Your task to perform on an android device: Go to network settings Image 0: 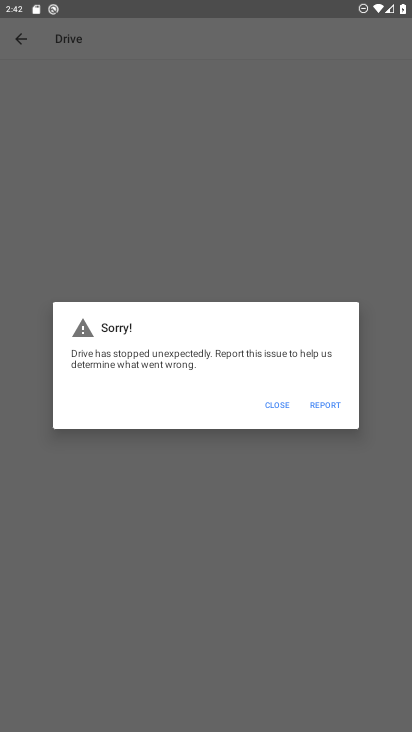
Step 0: press home button
Your task to perform on an android device: Go to network settings Image 1: 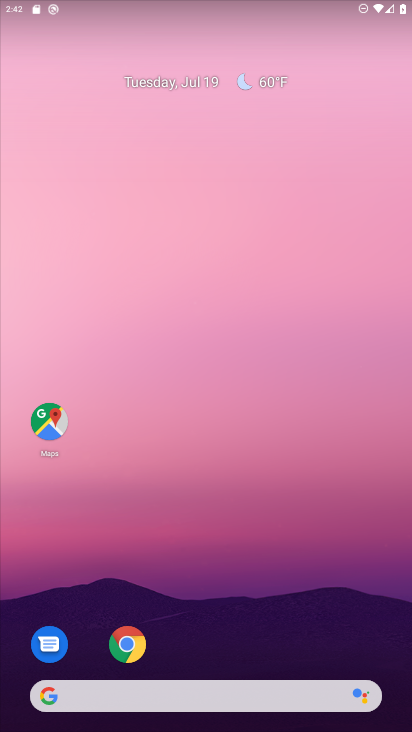
Step 1: drag from (377, 425) to (328, 17)
Your task to perform on an android device: Go to network settings Image 2: 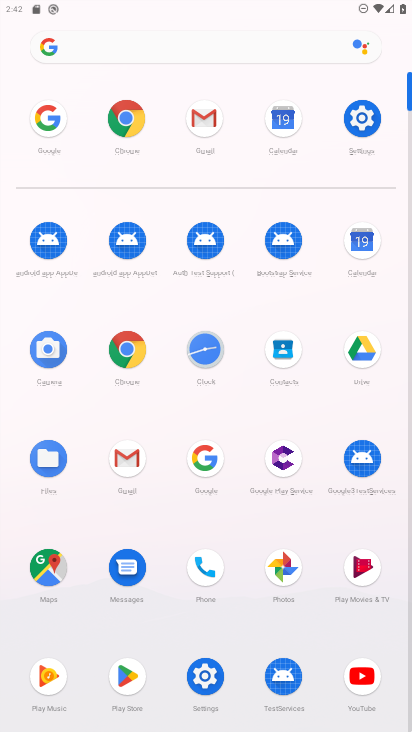
Step 2: click (362, 122)
Your task to perform on an android device: Go to network settings Image 3: 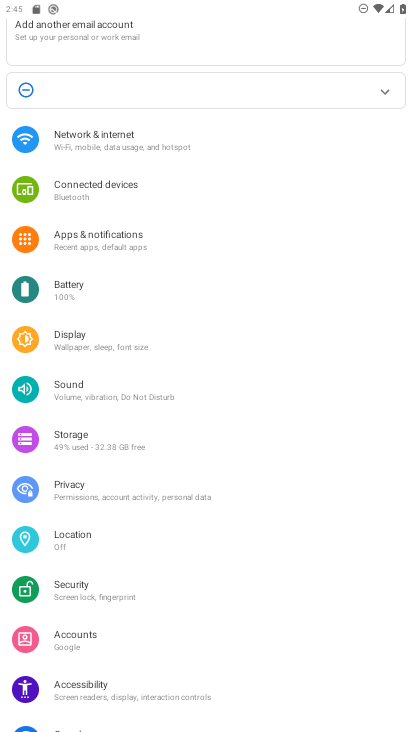
Step 3: click (83, 232)
Your task to perform on an android device: Go to network settings Image 4: 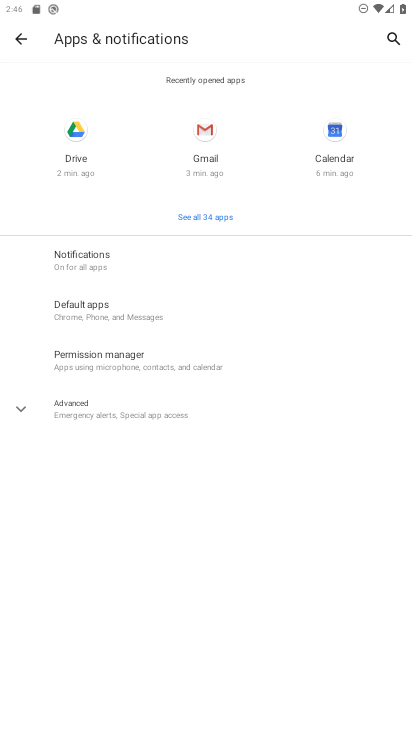
Step 4: press home button
Your task to perform on an android device: Go to network settings Image 5: 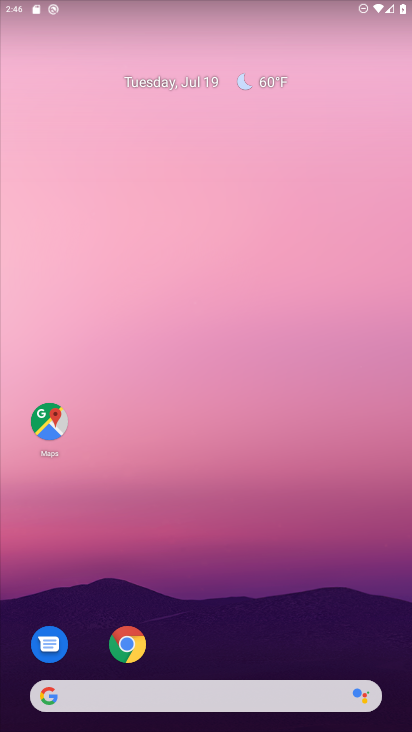
Step 5: drag from (390, 627) to (350, 159)
Your task to perform on an android device: Go to network settings Image 6: 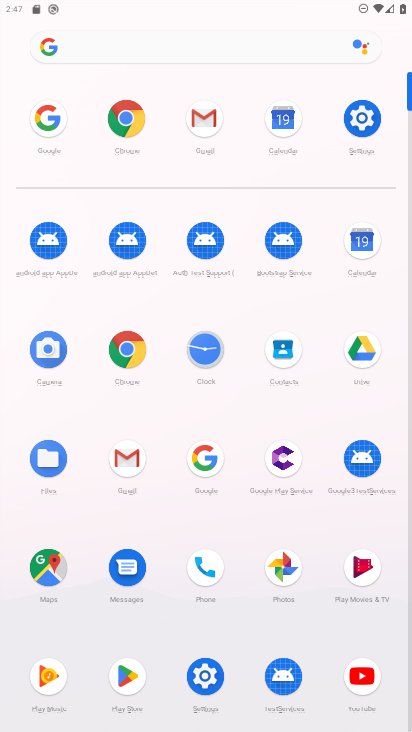
Step 6: click (353, 118)
Your task to perform on an android device: Go to network settings Image 7: 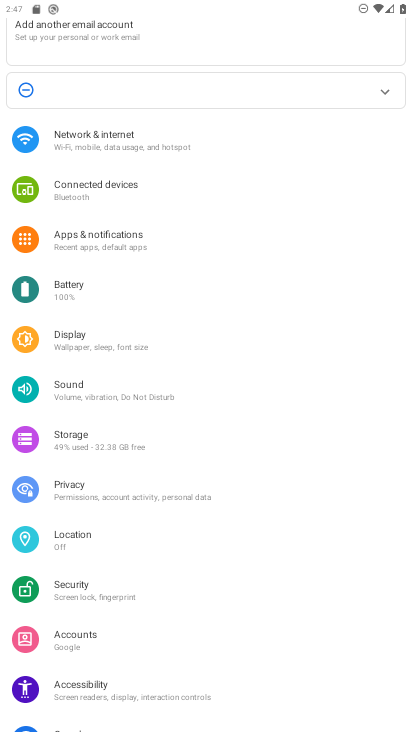
Step 7: click (98, 146)
Your task to perform on an android device: Go to network settings Image 8: 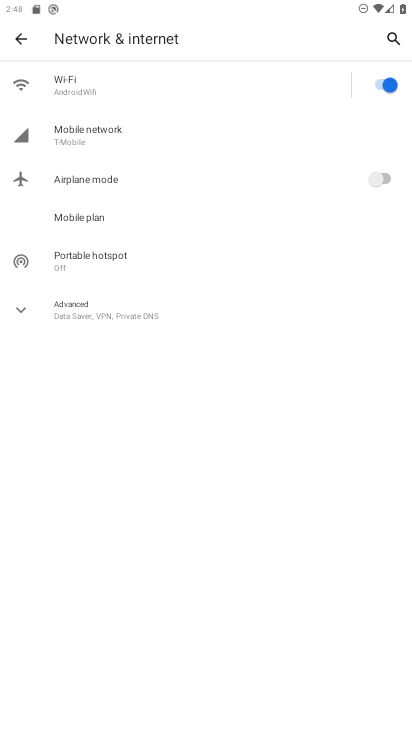
Step 8: click (99, 141)
Your task to perform on an android device: Go to network settings Image 9: 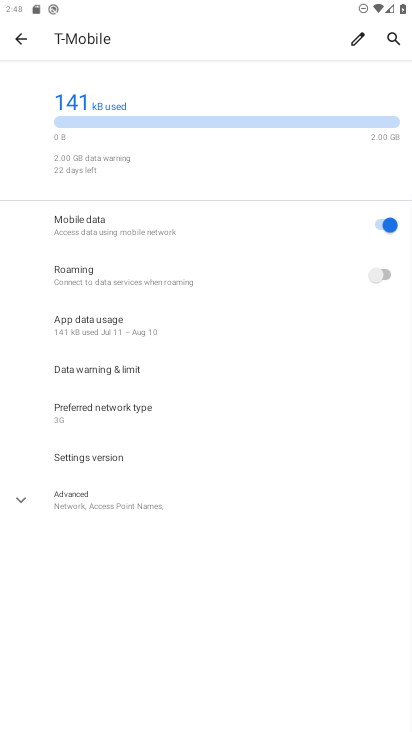
Step 9: click (24, 497)
Your task to perform on an android device: Go to network settings Image 10: 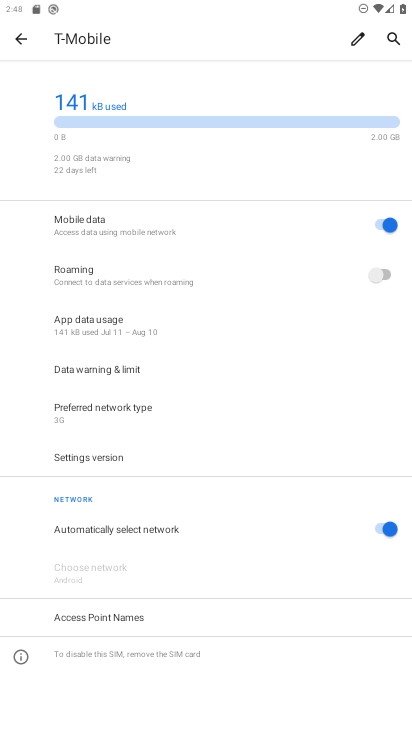
Step 10: task complete